Your task to perform on an android device: change notification settings in the gmail app Image 0: 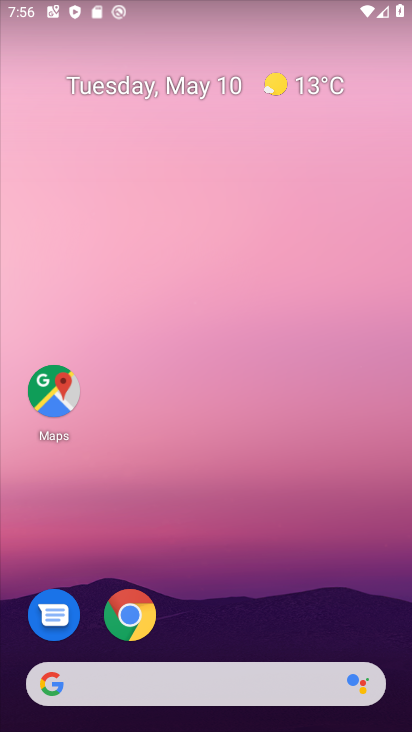
Step 0: drag from (217, 552) to (153, 220)
Your task to perform on an android device: change notification settings in the gmail app Image 1: 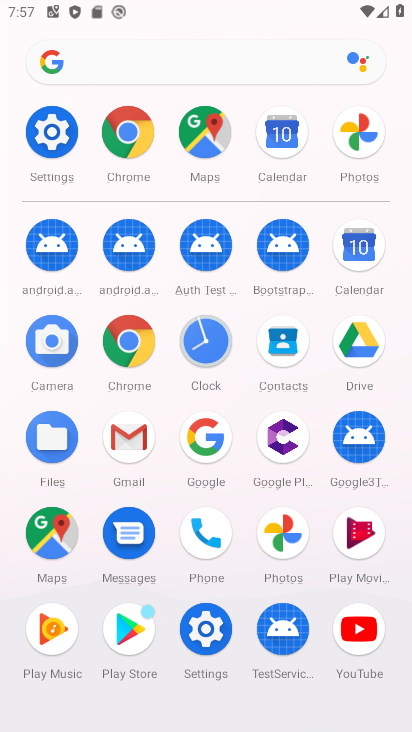
Step 1: click (130, 438)
Your task to perform on an android device: change notification settings in the gmail app Image 2: 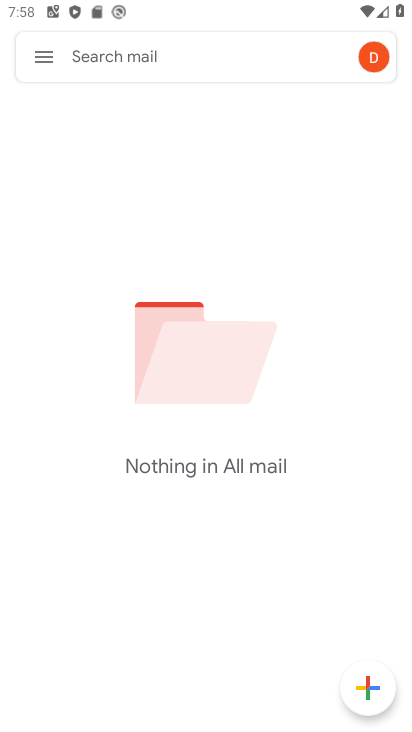
Step 2: click (35, 51)
Your task to perform on an android device: change notification settings in the gmail app Image 3: 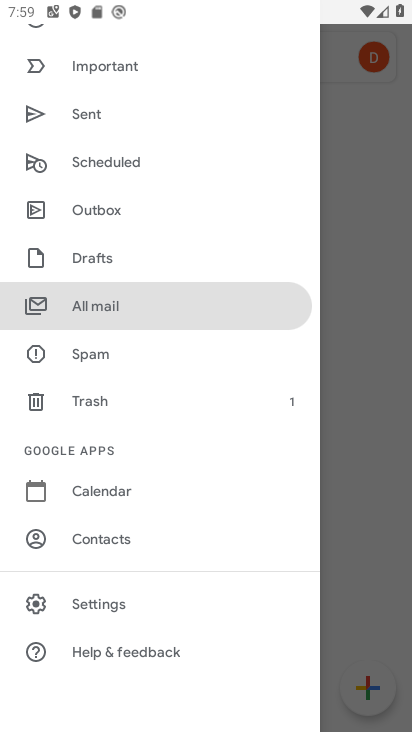
Step 3: click (95, 603)
Your task to perform on an android device: change notification settings in the gmail app Image 4: 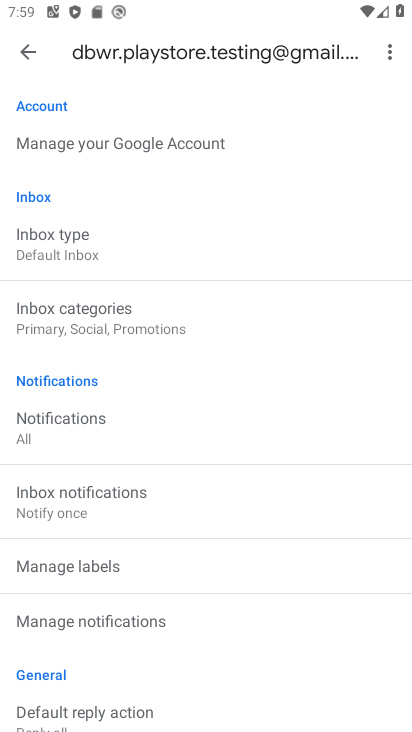
Step 4: click (28, 46)
Your task to perform on an android device: change notification settings in the gmail app Image 5: 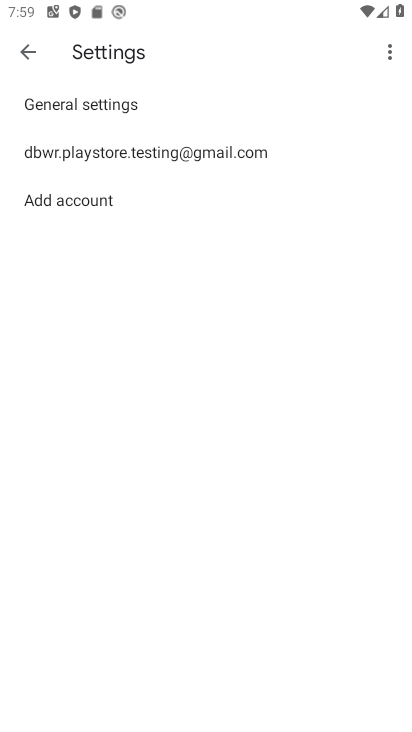
Step 5: click (62, 106)
Your task to perform on an android device: change notification settings in the gmail app Image 6: 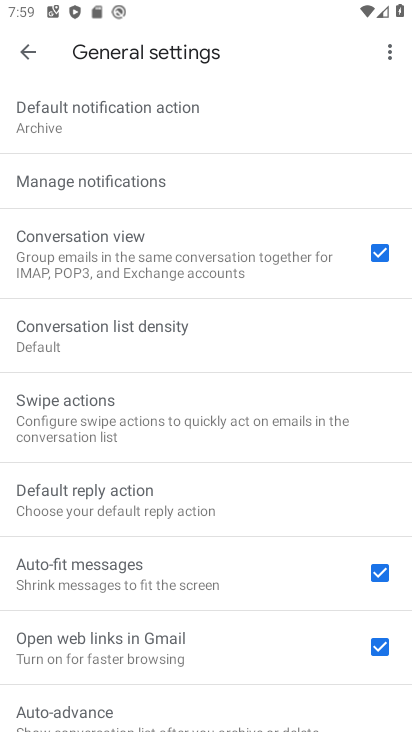
Step 6: click (121, 173)
Your task to perform on an android device: change notification settings in the gmail app Image 7: 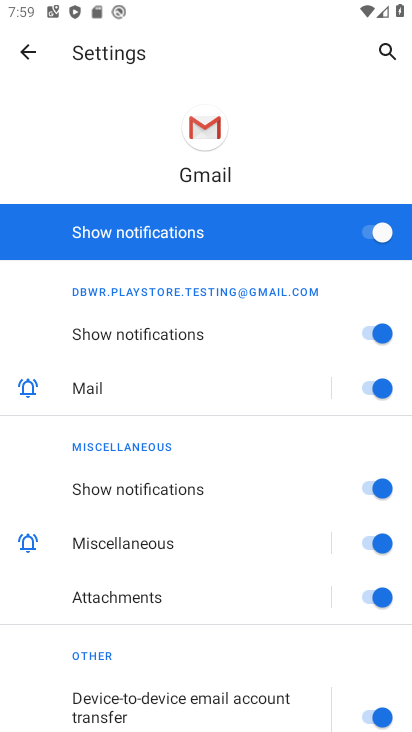
Step 7: click (385, 243)
Your task to perform on an android device: change notification settings in the gmail app Image 8: 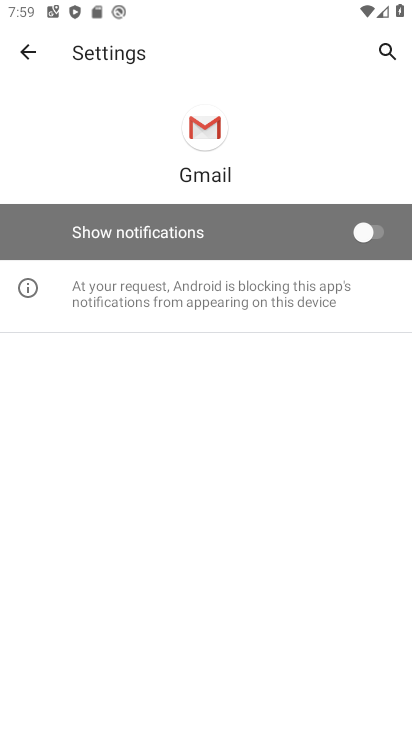
Step 8: task complete